Your task to perform on an android device: Check the news Image 0: 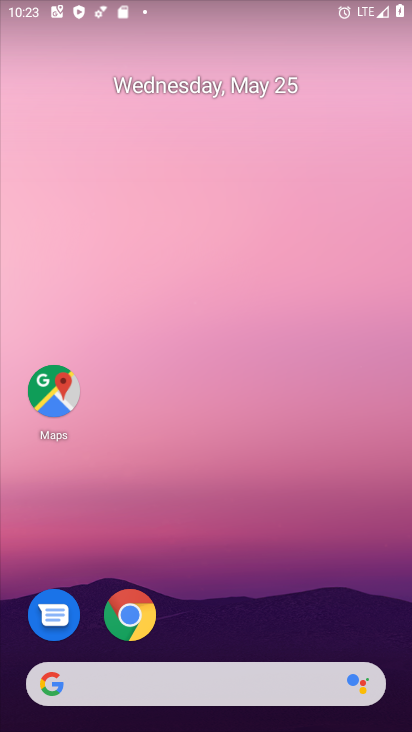
Step 0: click (236, 690)
Your task to perform on an android device: Check the news Image 1: 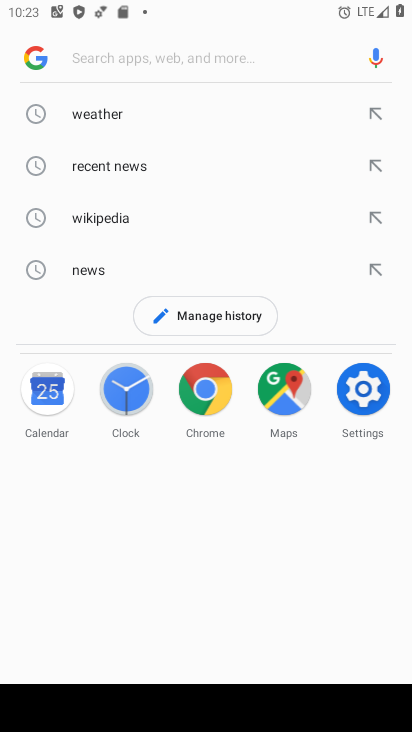
Step 1: click (78, 266)
Your task to perform on an android device: Check the news Image 2: 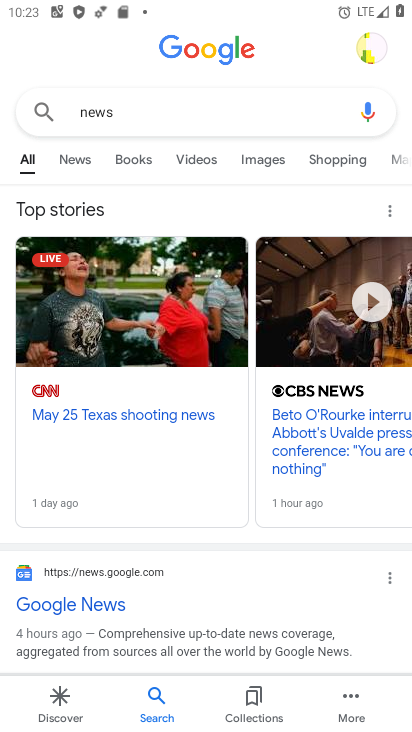
Step 2: click (77, 149)
Your task to perform on an android device: Check the news Image 3: 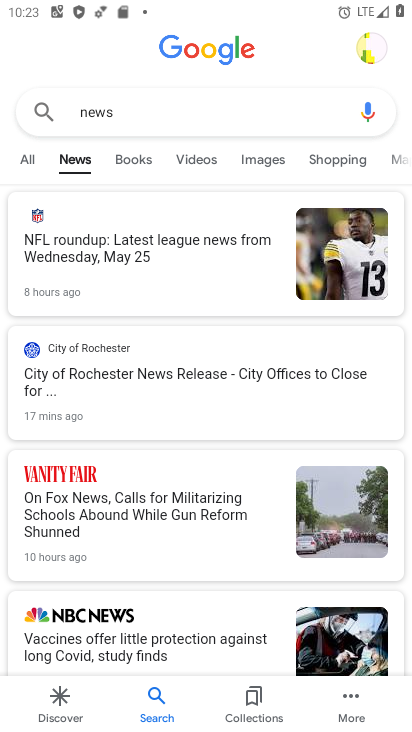
Step 3: task complete